Your task to perform on an android device: Do I have any events today? Image 0: 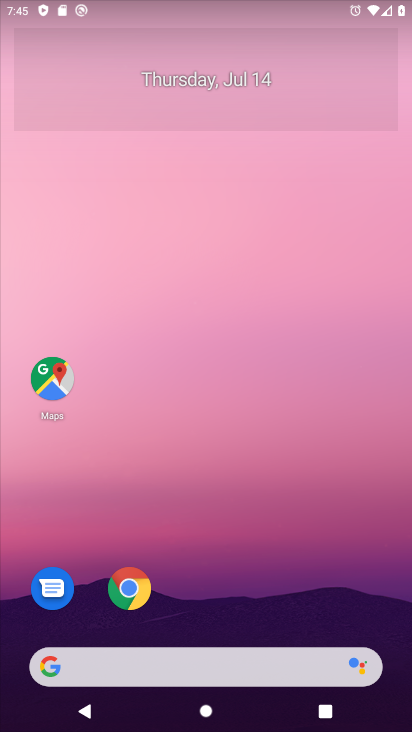
Step 0: drag from (15, 711) to (267, 184)
Your task to perform on an android device: Do I have any events today? Image 1: 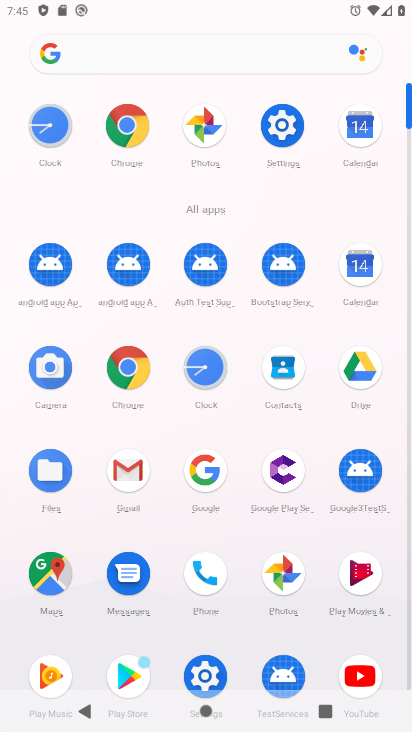
Step 1: click (359, 274)
Your task to perform on an android device: Do I have any events today? Image 2: 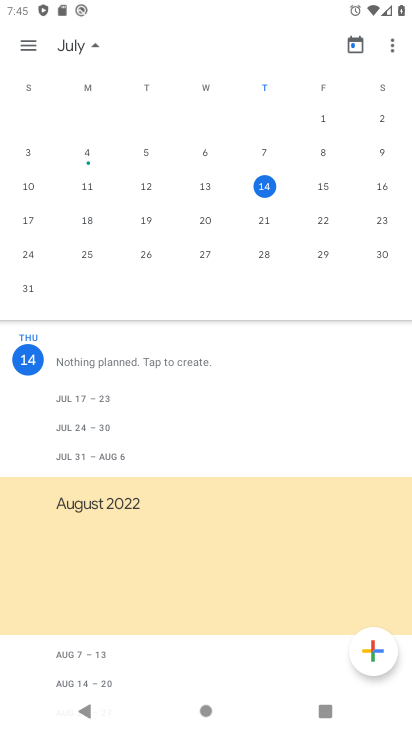
Step 2: click (28, 48)
Your task to perform on an android device: Do I have any events today? Image 3: 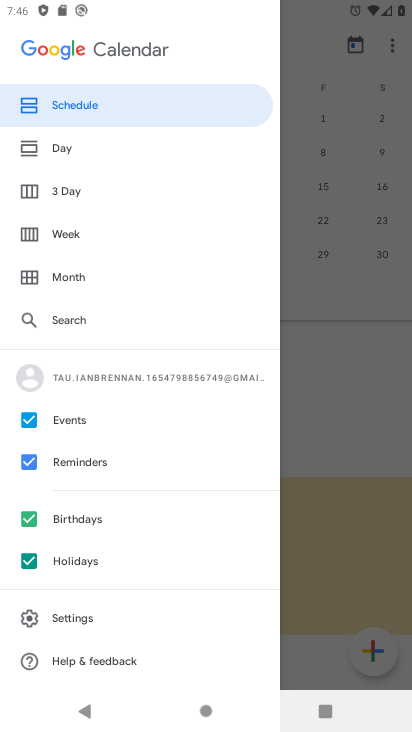
Step 3: task complete